Your task to perform on an android device: choose inbox layout in the gmail app Image 0: 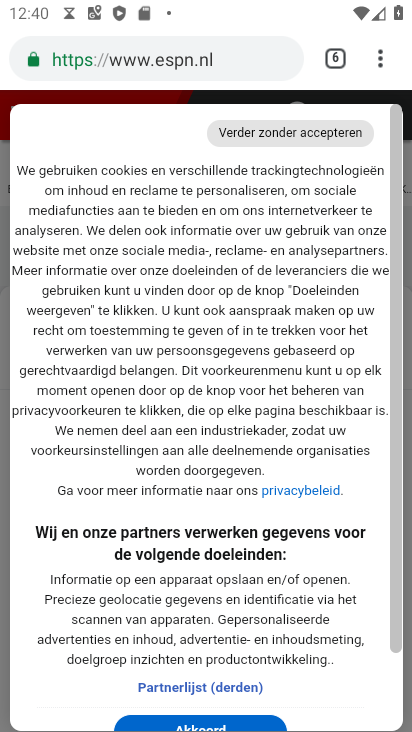
Step 0: press home button
Your task to perform on an android device: choose inbox layout in the gmail app Image 1: 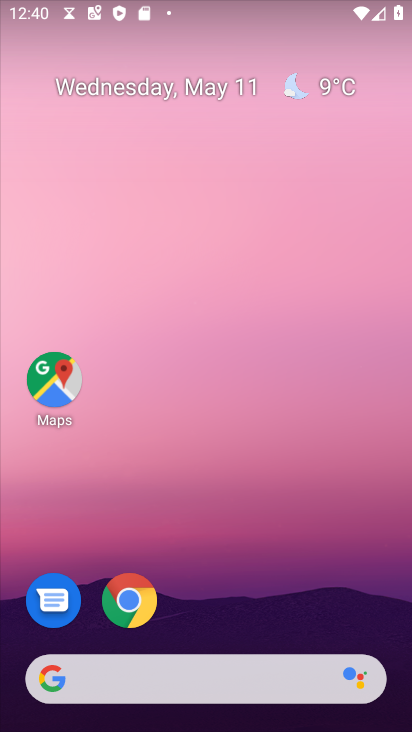
Step 1: drag from (291, 454) to (238, 42)
Your task to perform on an android device: choose inbox layout in the gmail app Image 2: 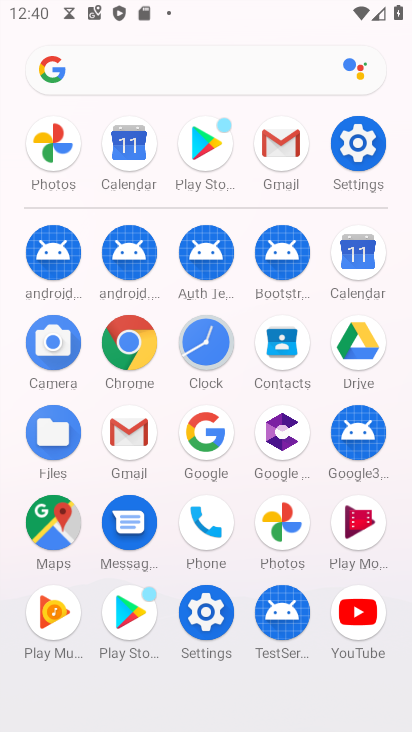
Step 2: click (131, 428)
Your task to perform on an android device: choose inbox layout in the gmail app Image 3: 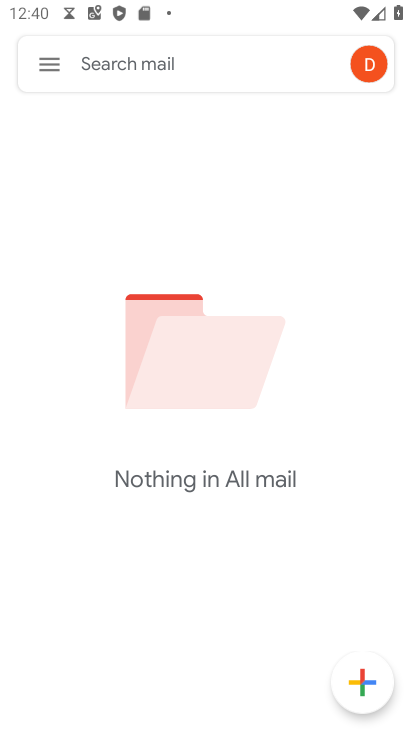
Step 3: click (42, 56)
Your task to perform on an android device: choose inbox layout in the gmail app Image 4: 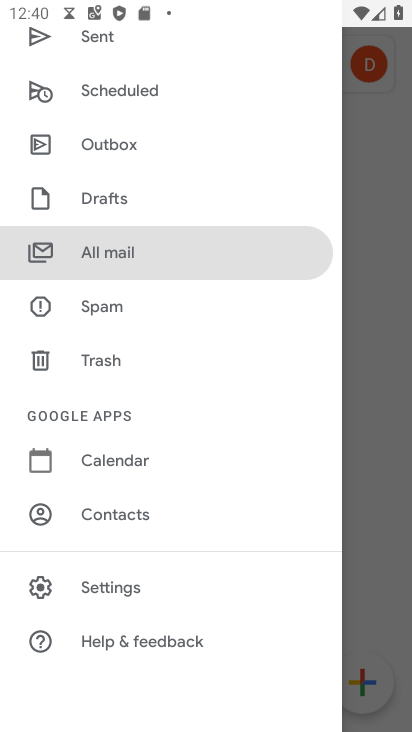
Step 4: click (136, 578)
Your task to perform on an android device: choose inbox layout in the gmail app Image 5: 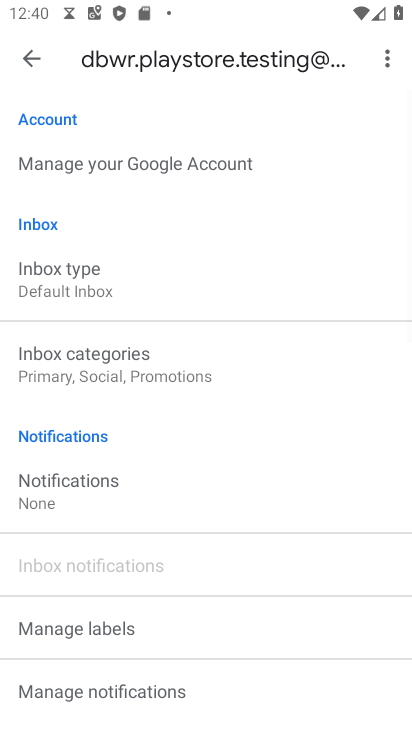
Step 5: click (81, 275)
Your task to perform on an android device: choose inbox layout in the gmail app Image 6: 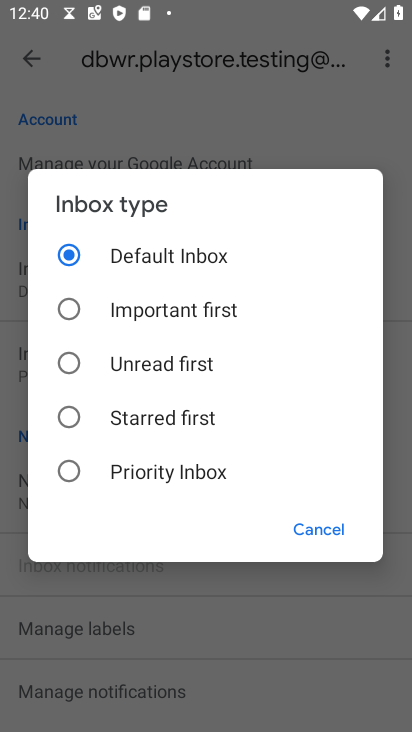
Step 6: click (158, 358)
Your task to perform on an android device: choose inbox layout in the gmail app Image 7: 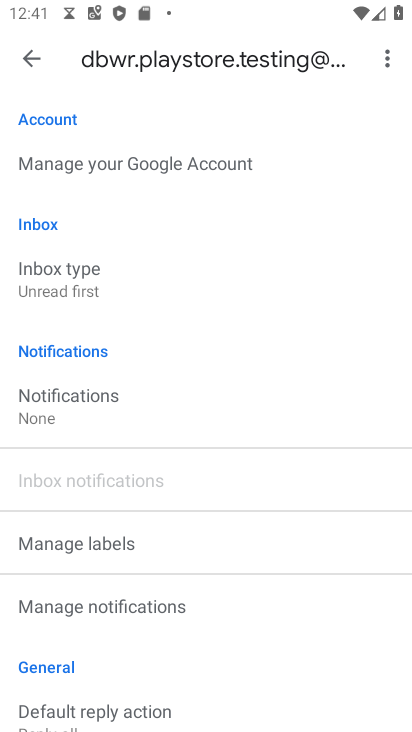
Step 7: task complete